Your task to perform on an android device: Search for seafood restaurants on Google Maps Image 0: 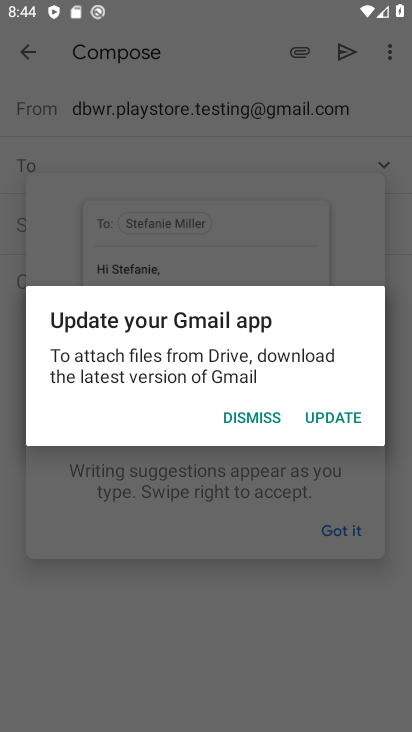
Step 0: press home button
Your task to perform on an android device: Search for seafood restaurants on Google Maps Image 1: 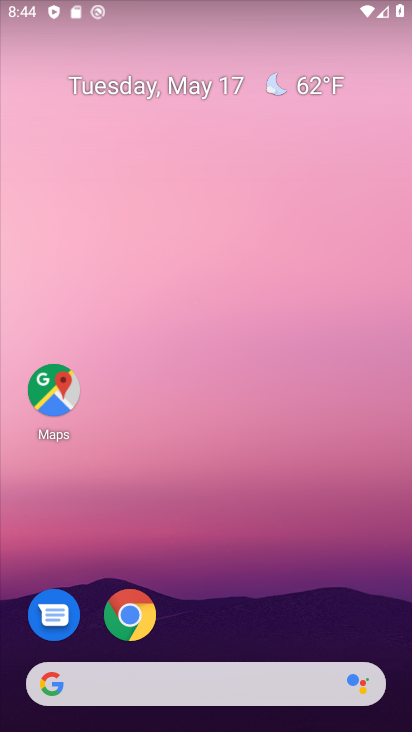
Step 1: click (67, 409)
Your task to perform on an android device: Search for seafood restaurants on Google Maps Image 2: 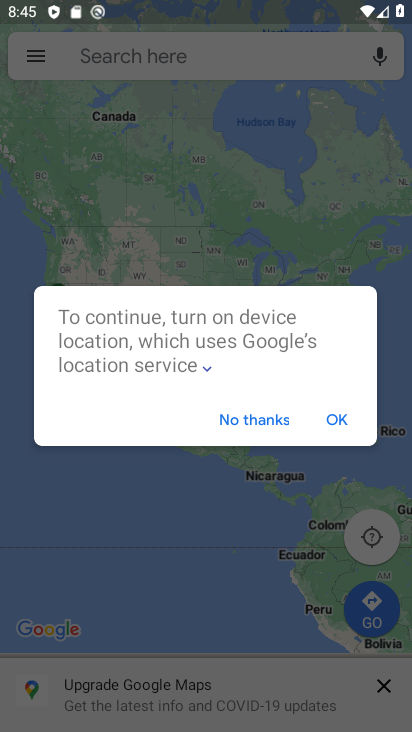
Step 2: click (341, 430)
Your task to perform on an android device: Search for seafood restaurants on Google Maps Image 3: 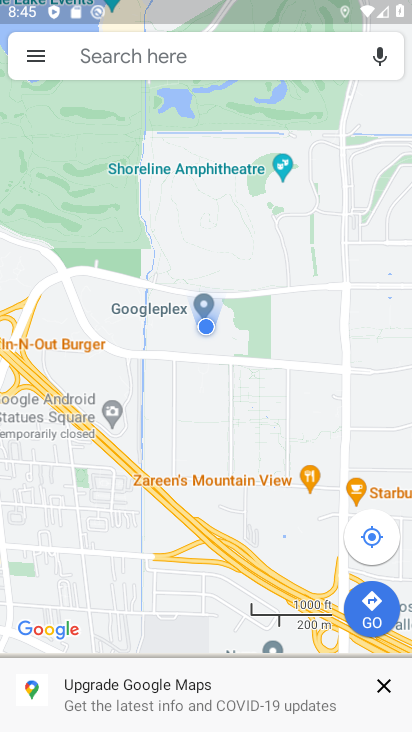
Step 3: click (233, 49)
Your task to perform on an android device: Search for seafood restaurants on Google Maps Image 4: 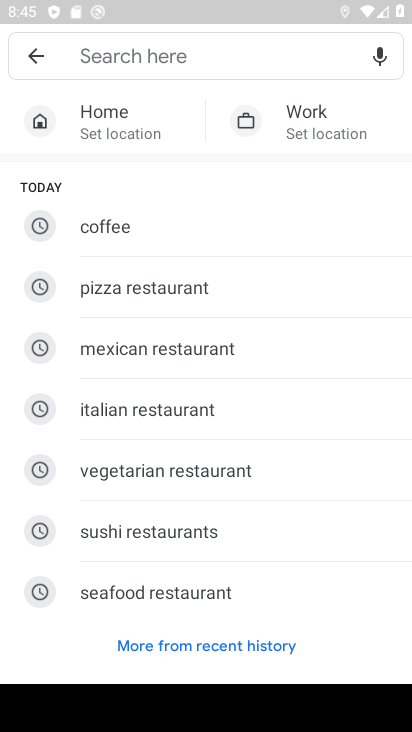
Step 4: click (193, 588)
Your task to perform on an android device: Search for seafood restaurants on Google Maps Image 5: 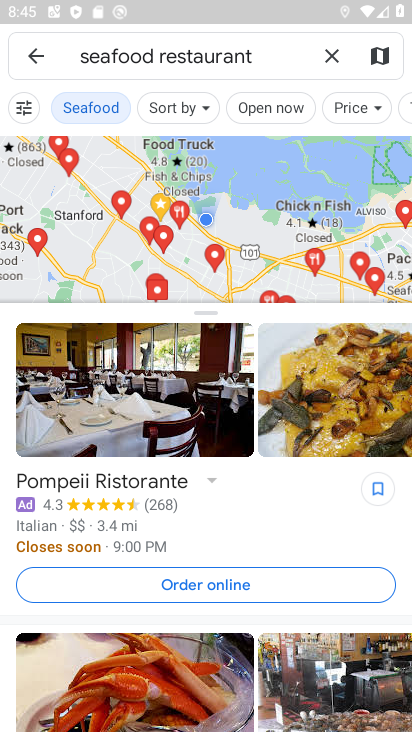
Step 5: task complete